Your task to perform on an android device: toggle data saver in the chrome app Image 0: 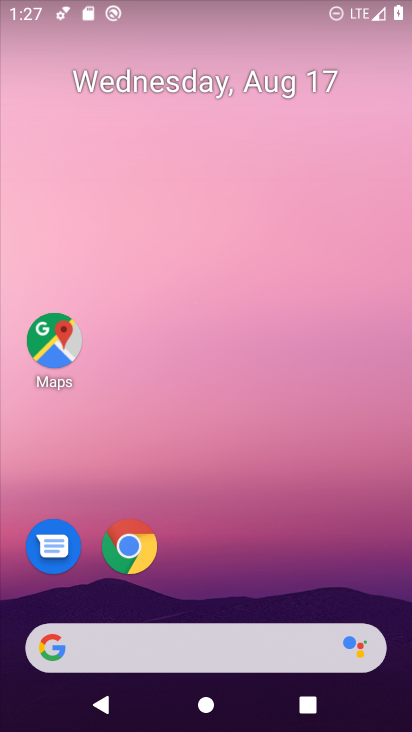
Step 0: click (126, 547)
Your task to perform on an android device: toggle data saver in the chrome app Image 1: 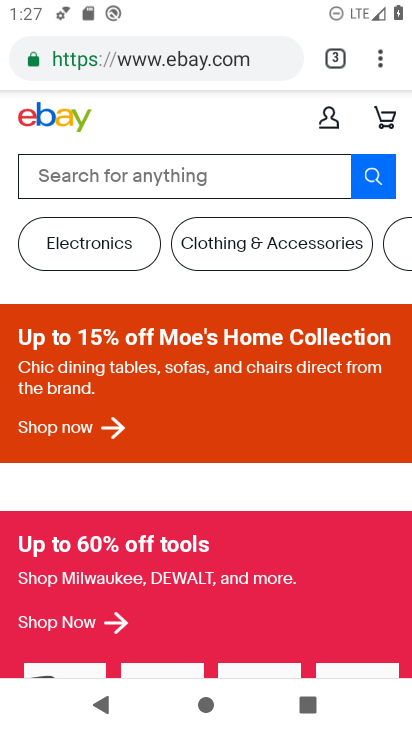
Step 1: click (382, 59)
Your task to perform on an android device: toggle data saver in the chrome app Image 2: 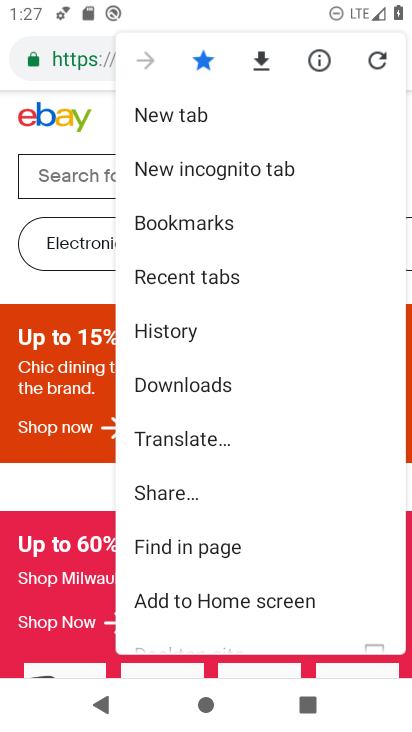
Step 2: drag from (271, 569) to (194, 169)
Your task to perform on an android device: toggle data saver in the chrome app Image 3: 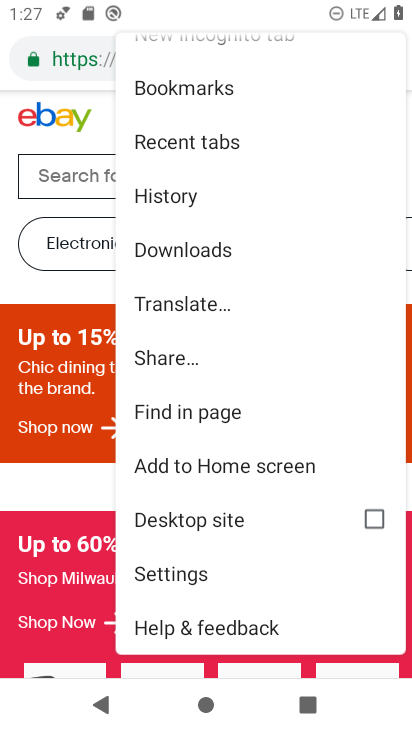
Step 3: click (198, 570)
Your task to perform on an android device: toggle data saver in the chrome app Image 4: 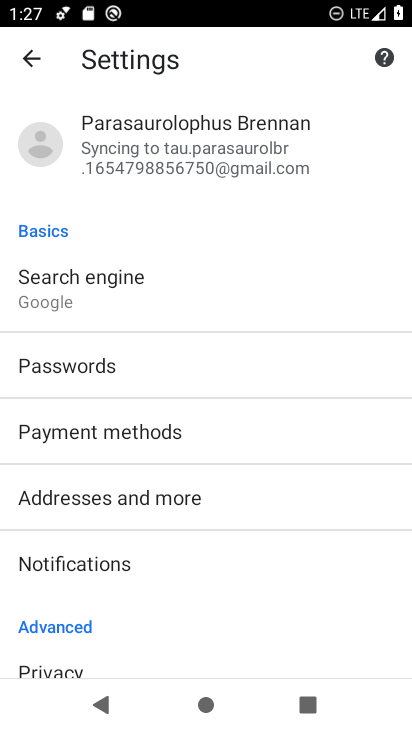
Step 4: drag from (221, 611) to (212, 276)
Your task to perform on an android device: toggle data saver in the chrome app Image 5: 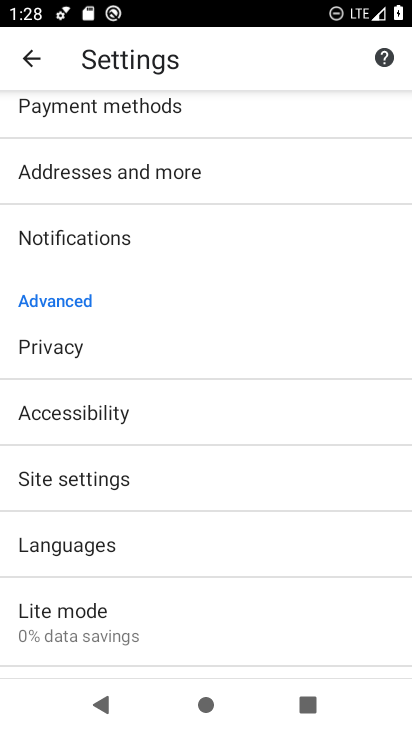
Step 5: click (75, 607)
Your task to perform on an android device: toggle data saver in the chrome app Image 6: 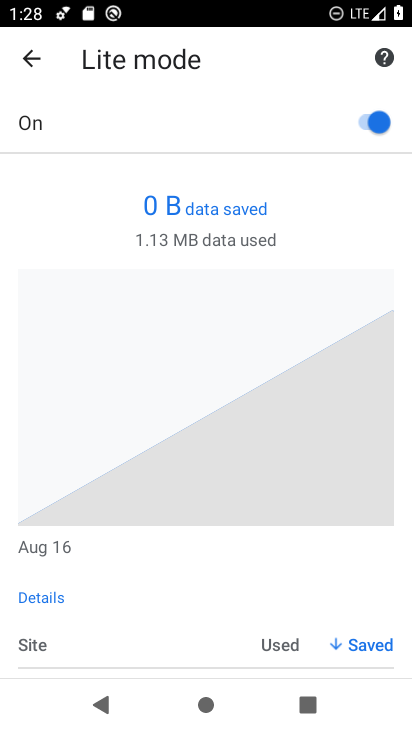
Step 6: click (378, 119)
Your task to perform on an android device: toggle data saver in the chrome app Image 7: 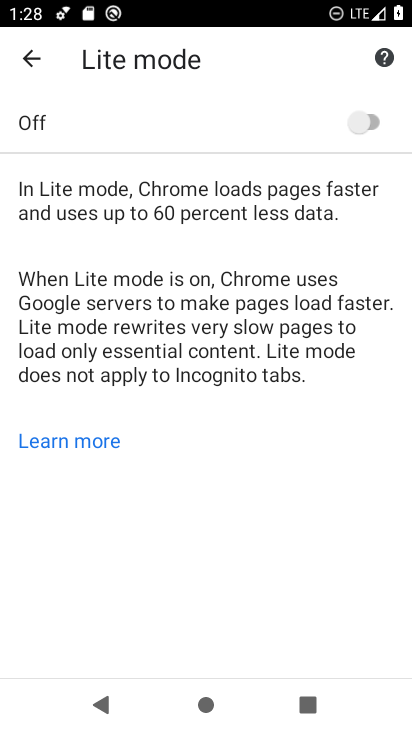
Step 7: task complete